Your task to perform on an android device: What's the weather going to be tomorrow? Image 0: 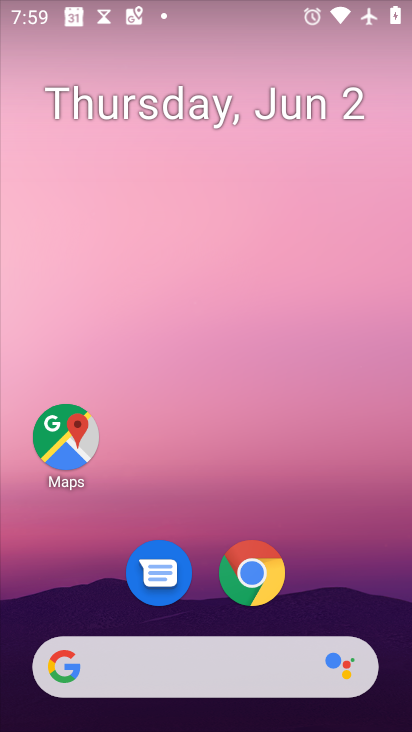
Step 0: click (77, 671)
Your task to perform on an android device: What's the weather going to be tomorrow? Image 1: 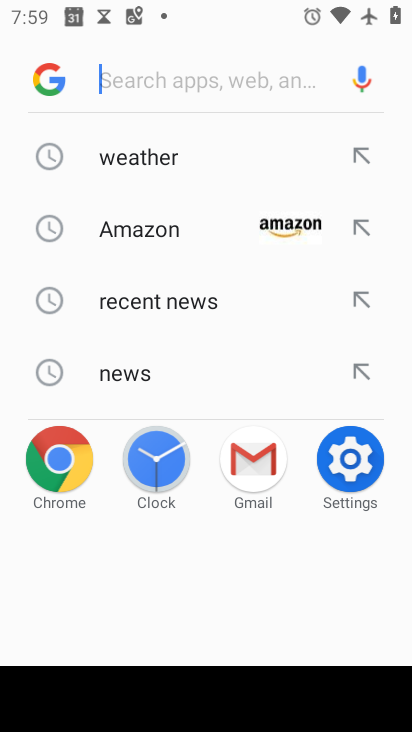
Step 1: click (155, 157)
Your task to perform on an android device: What's the weather going to be tomorrow? Image 2: 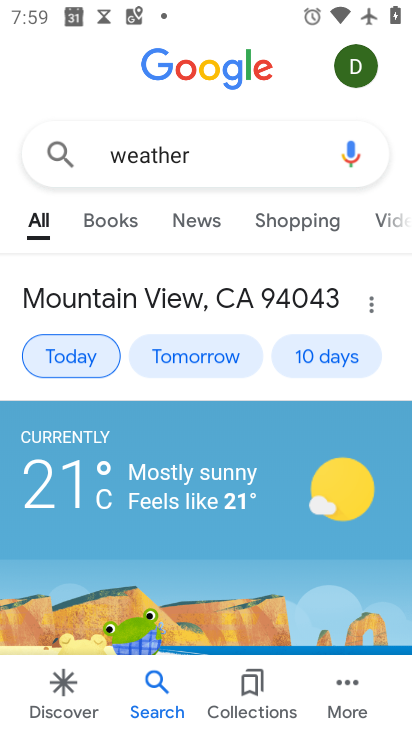
Step 2: click (194, 358)
Your task to perform on an android device: What's the weather going to be tomorrow? Image 3: 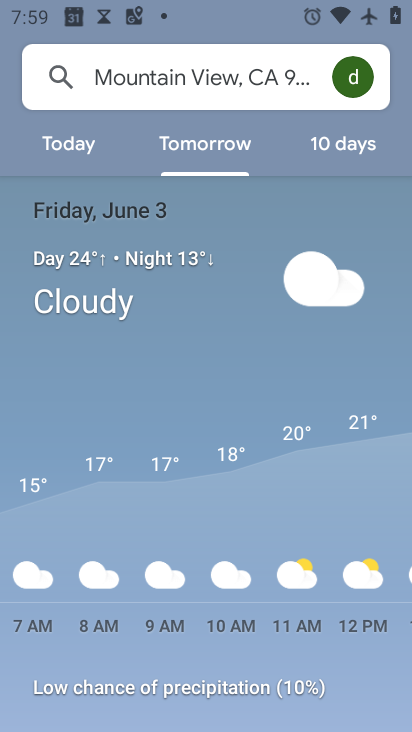
Step 3: task complete